Your task to perform on an android device: delete a single message in the gmail app Image 0: 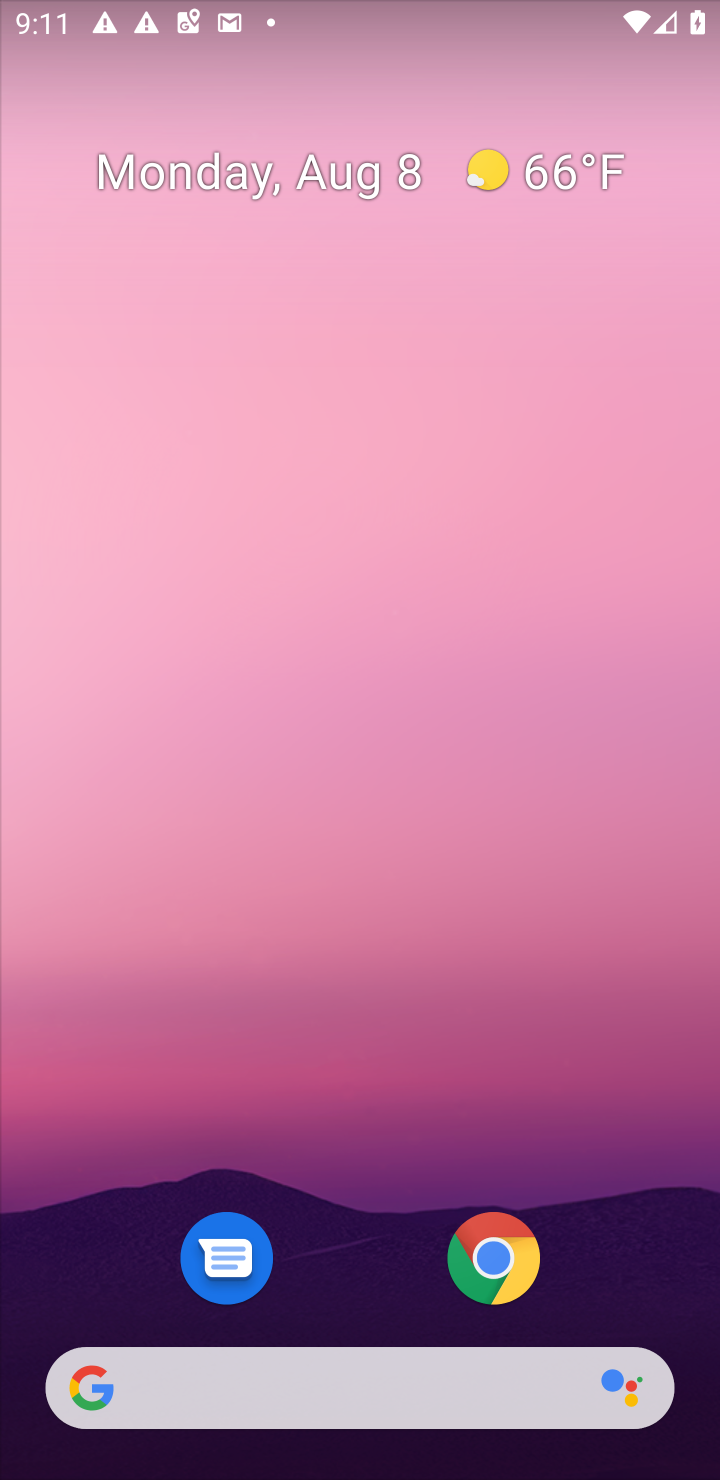
Step 0: drag from (500, 983) to (542, 76)
Your task to perform on an android device: delete a single message in the gmail app Image 1: 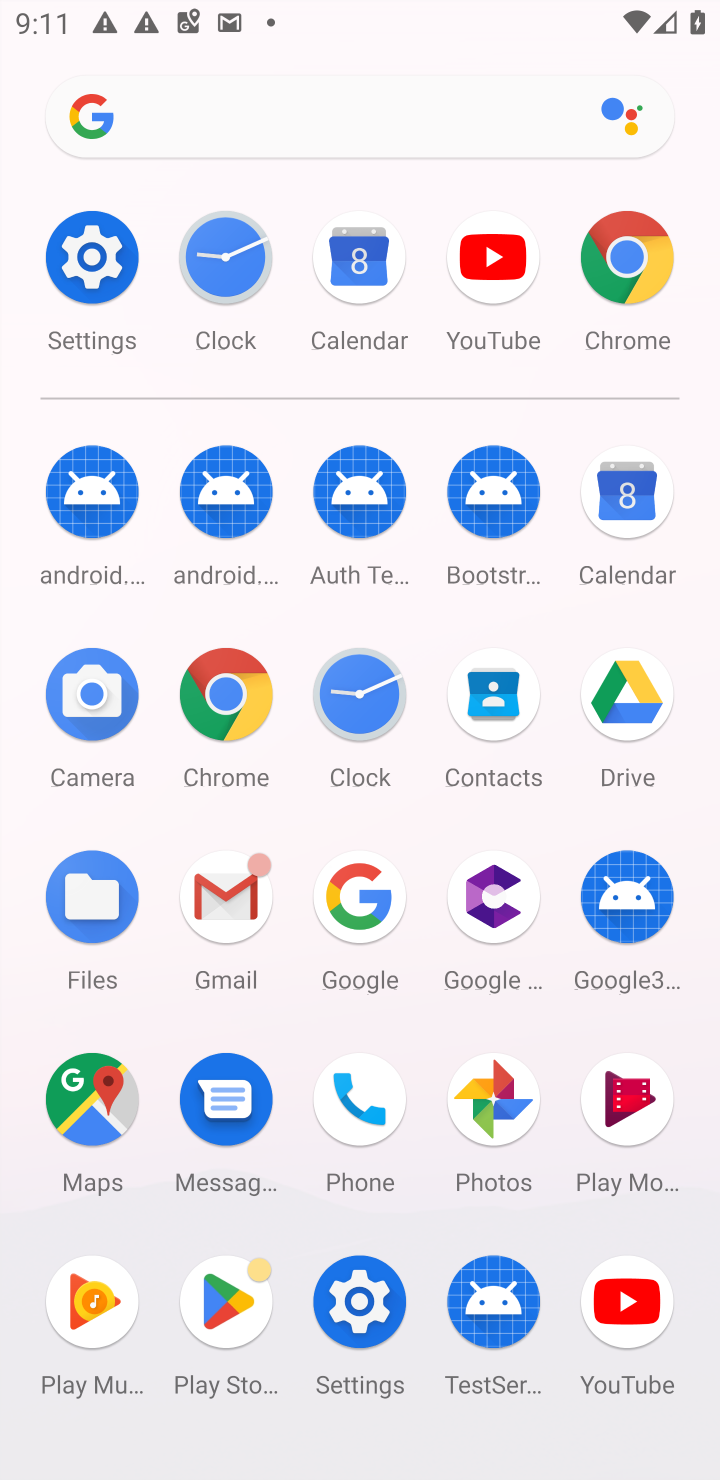
Step 1: click (241, 872)
Your task to perform on an android device: delete a single message in the gmail app Image 2: 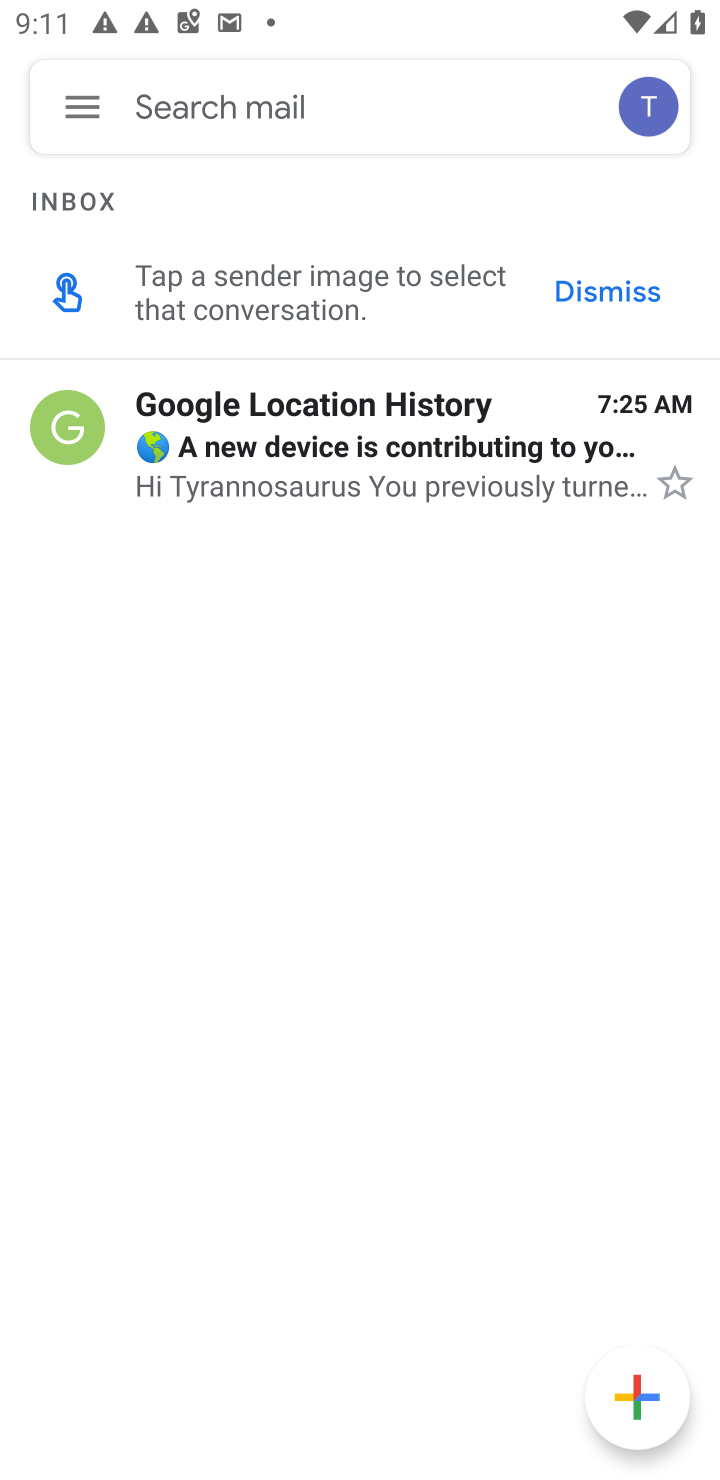
Step 2: task complete